Your task to perform on an android device: turn off airplane mode Image 0: 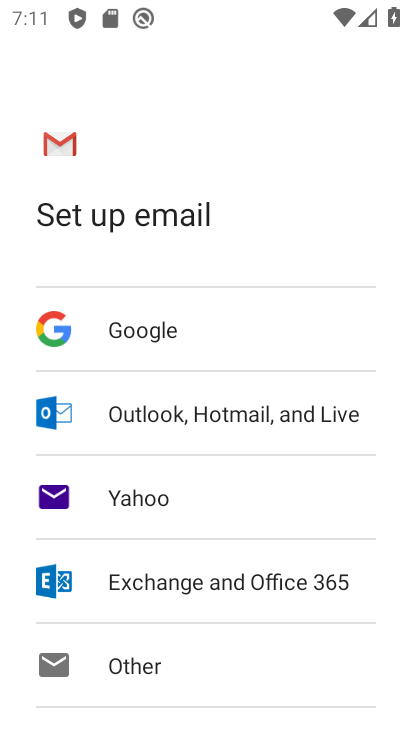
Step 0: press home button
Your task to perform on an android device: turn off airplane mode Image 1: 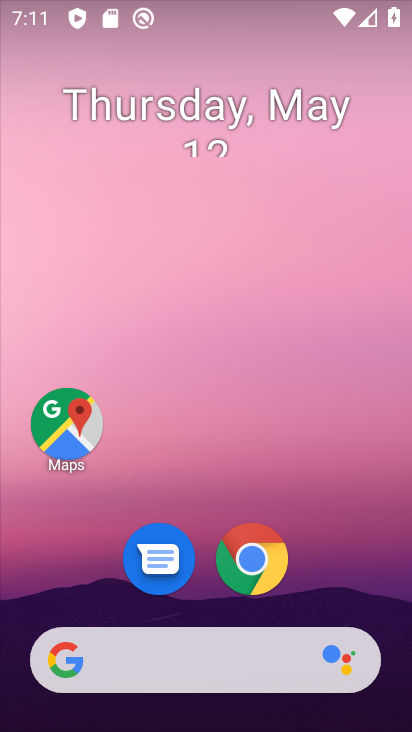
Step 1: drag from (183, 470) to (206, 228)
Your task to perform on an android device: turn off airplane mode Image 2: 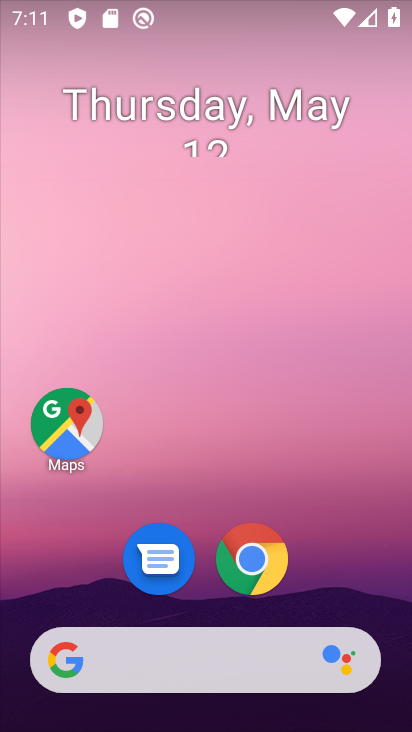
Step 2: drag from (210, 604) to (245, 314)
Your task to perform on an android device: turn off airplane mode Image 3: 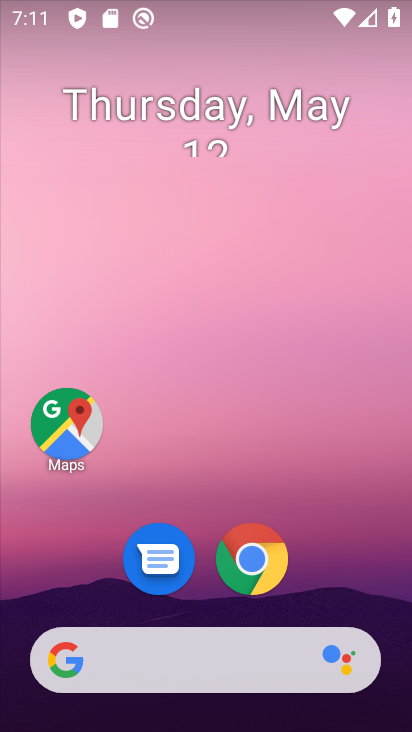
Step 3: drag from (195, 602) to (224, 204)
Your task to perform on an android device: turn off airplane mode Image 4: 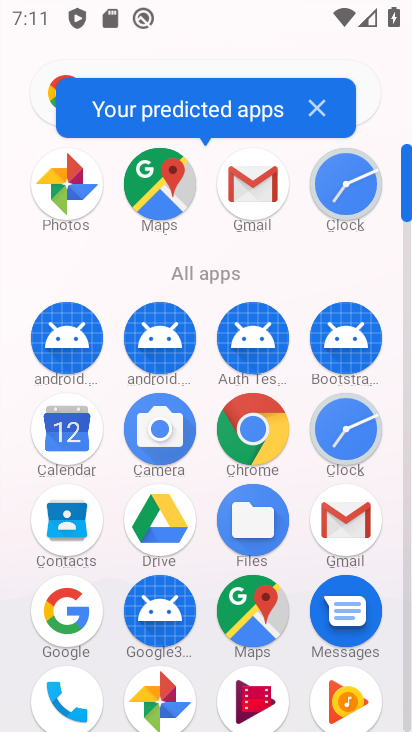
Step 4: drag from (291, 581) to (286, 342)
Your task to perform on an android device: turn off airplane mode Image 5: 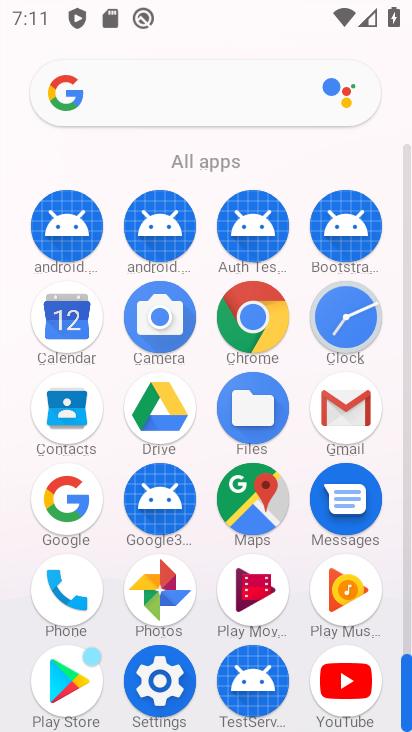
Step 5: click (163, 667)
Your task to perform on an android device: turn off airplane mode Image 6: 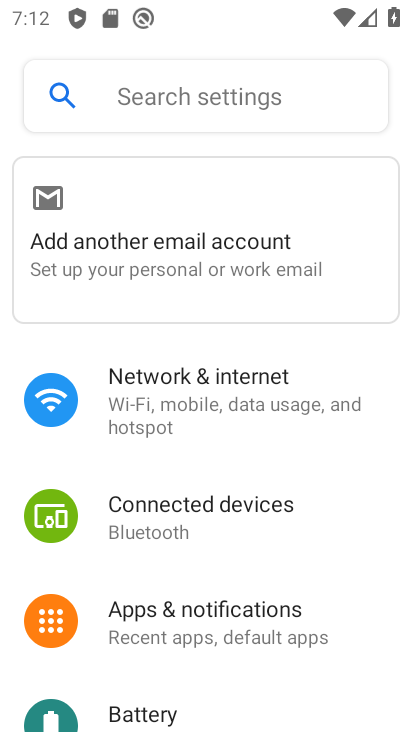
Step 6: click (135, 408)
Your task to perform on an android device: turn off airplane mode Image 7: 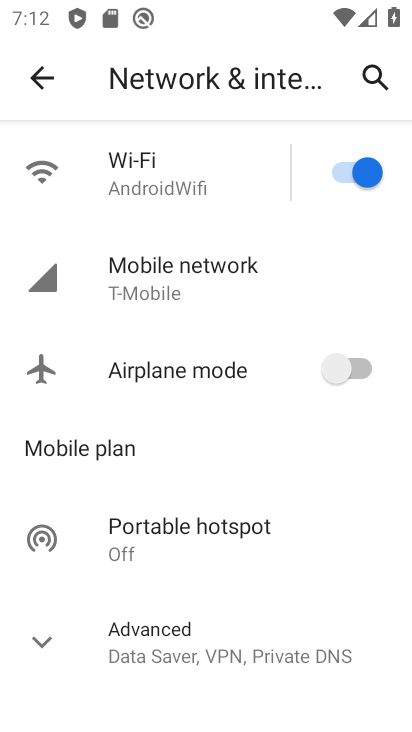
Step 7: task complete